Your task to perform on an android device: Open Youtube and go to the subscriptions tab Image 0: 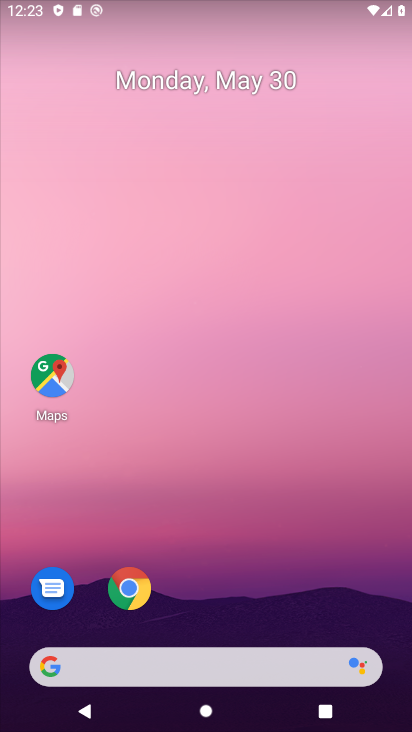
Step 0: drag from (275, 588) to (243, 29)
Your task to perform on an android device: Open Youtube and go to the subscriptions tab Image 1: 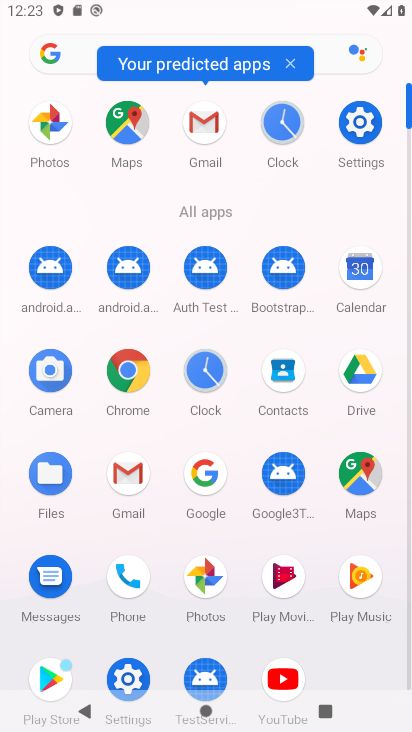
Step 1: click (286, 679)
Your task to perform on an android device: Open Youtube and go to the subscriptions tab Image 2: 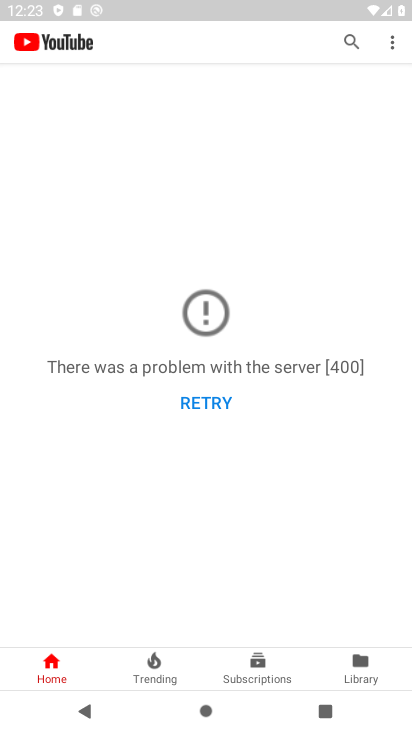
Step 2: click (276, 663)
Your task to perform on an android device: Open Youtube and go to the subscriptions tab Image 3: 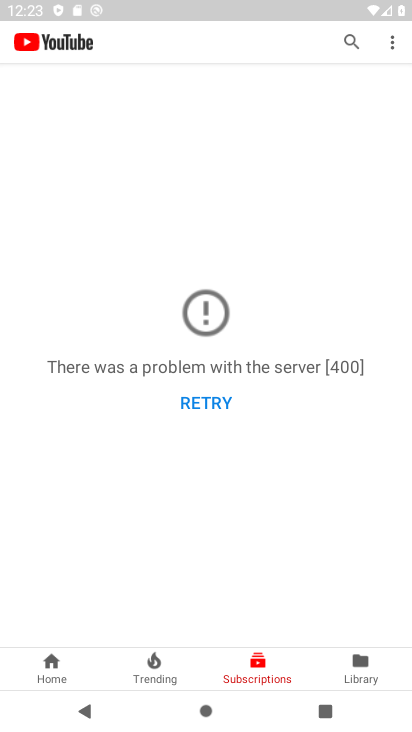
Step 3: task complete